Your task to perform on an android device: turn off data saver in the chrome app Image 0: 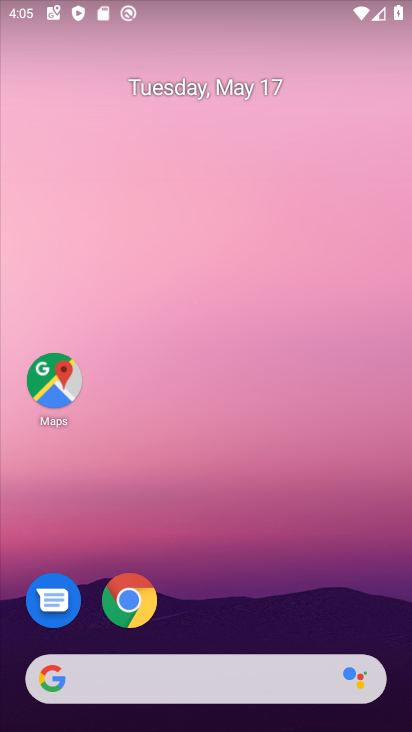
Step 0: drag from (232, 589) to (262, 72)
Your task to perform on an android device: turn off data saver in the chrome app Image 1: 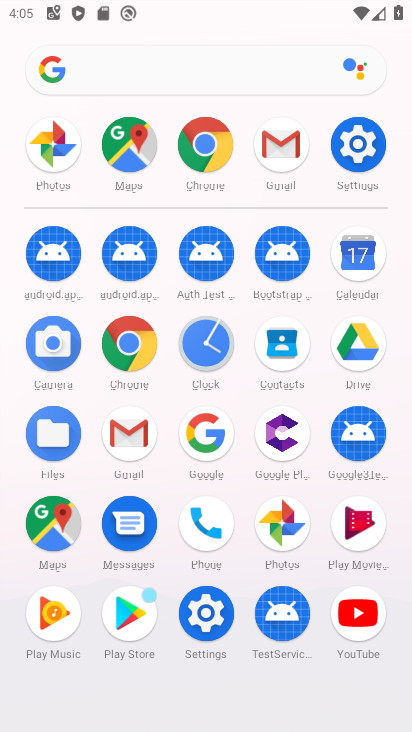
Step 1: click (129, 352)
Your task to perform on an android device: turn off data saver in the chrome app Image 2: 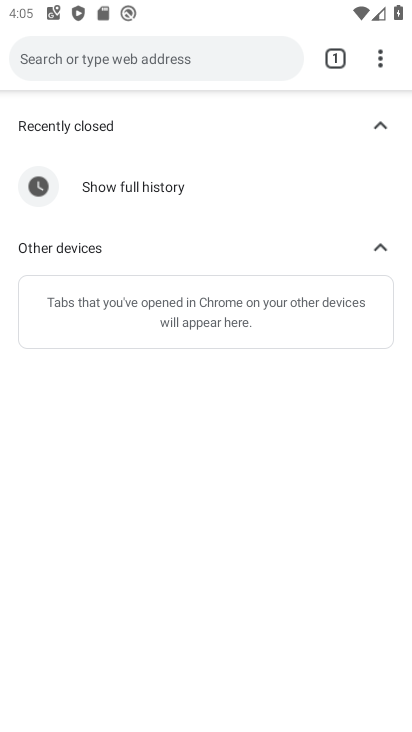
Step 2: click (386, 63)
Your task to perform on an android device: turn off data saver in the chrome app Image 3: 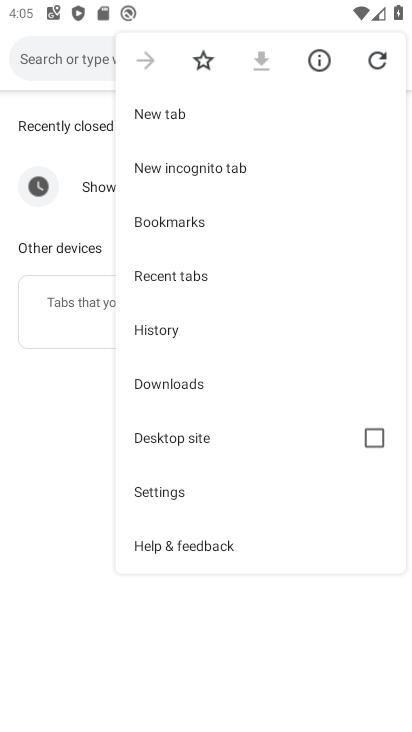
Step 3: click (176, 492)
Your task to perform on an android device: turn off data saver in the chrome app Image 4: 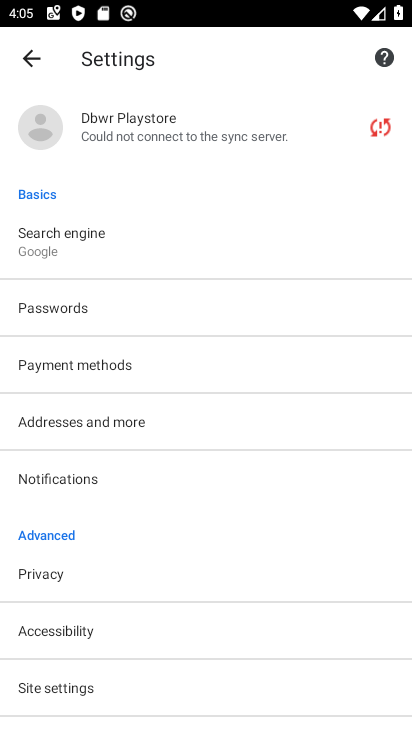
Step 4: drag from (95, 592) to (139, 375)
Your task to perform on an android device: turn off data saver in the chrome app Image 5: 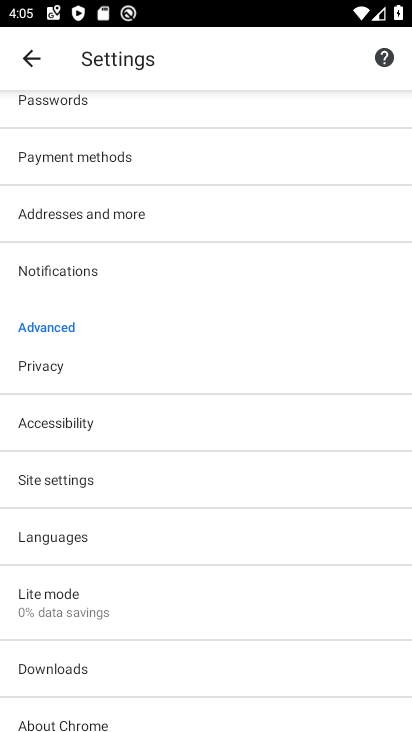
Step 5: click (60, 604)
Your task to perform on an android device: turn off data saver in the chrome app Image 6: 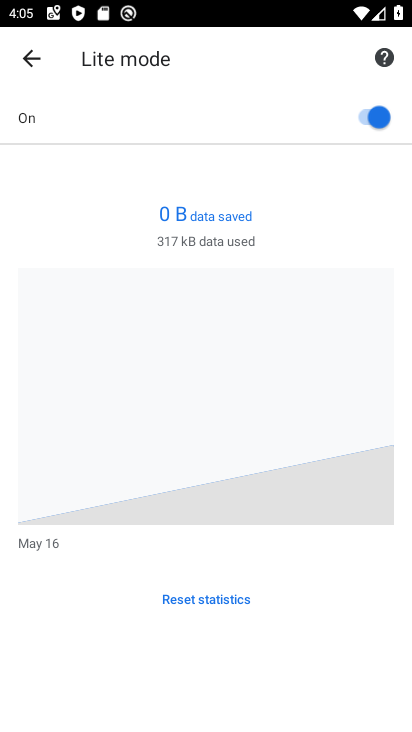
Step 6: click (351, 111)
Your task to perform on an android device: turn off data saver in the chrome app Image 7: 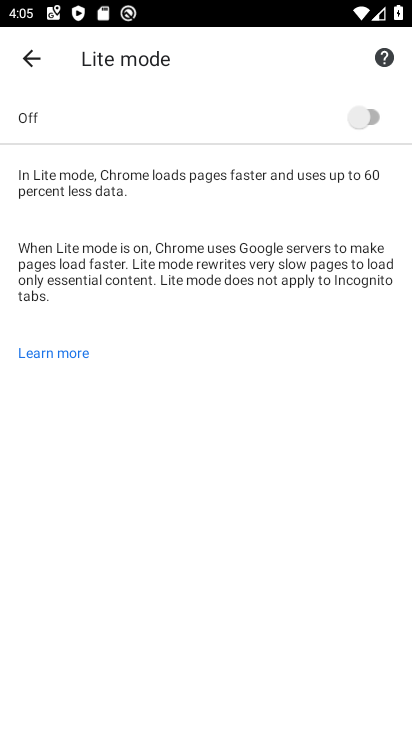
Step 7: task complete